Your task to perform on an android device: Open eBay Image 0: 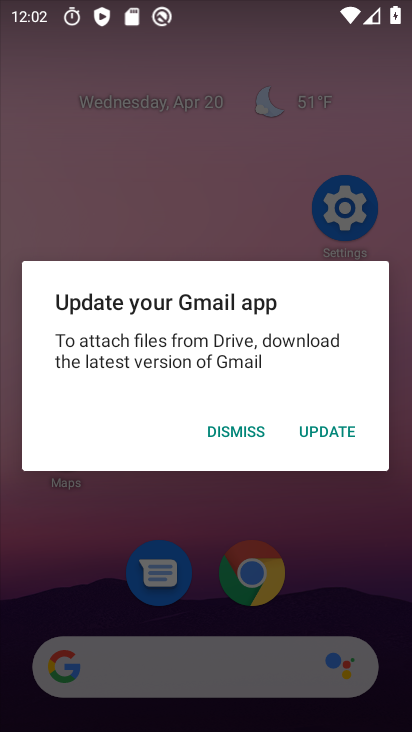
Step 0: press home button
Your task to perform on an android device: Open eBay Image 1: 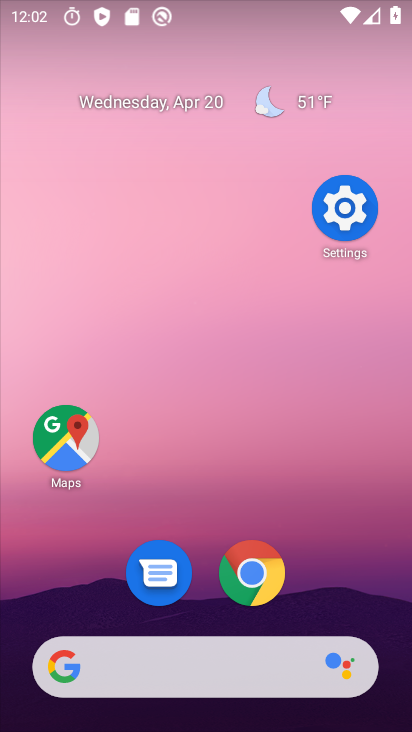
Step 1: click (242, 593)
Your task to perform on an android device: Open eBay Image 2: 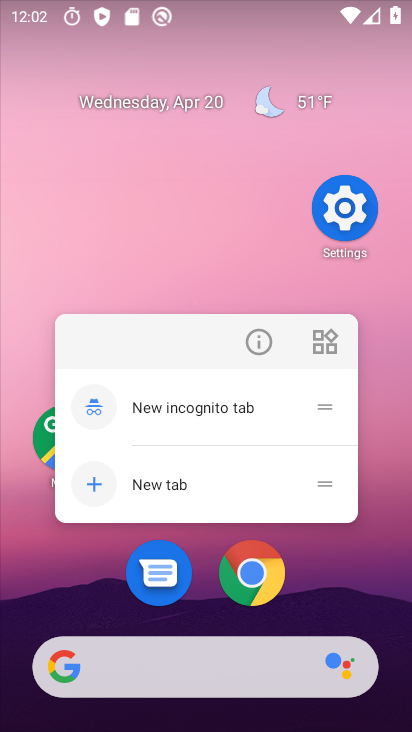
Step 2: click (266, 567)
Your task to perform on an android device: Open eBay Image 3: 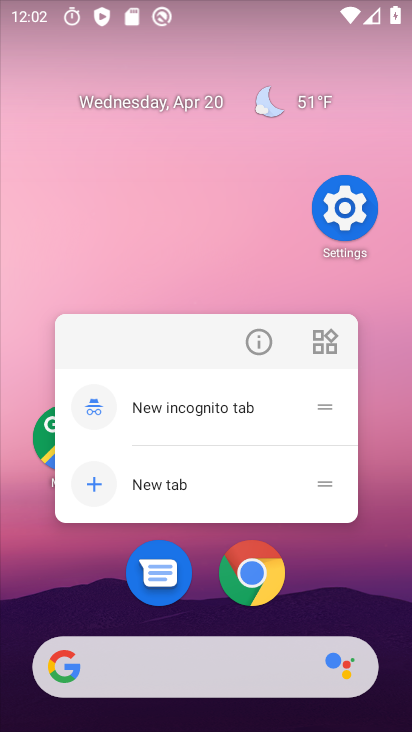
Step 3: click (259, 574)
Your task to perform on an android device: Open eBay Image 4: 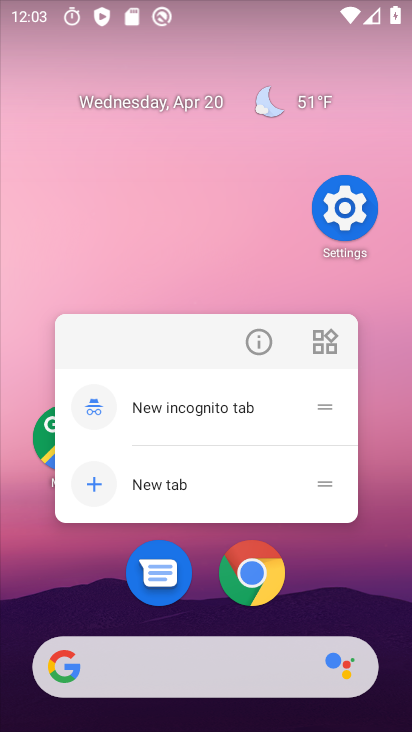
Step 4: click (257, 591)
Your task to perform on an android device: Open eBay Image 5: 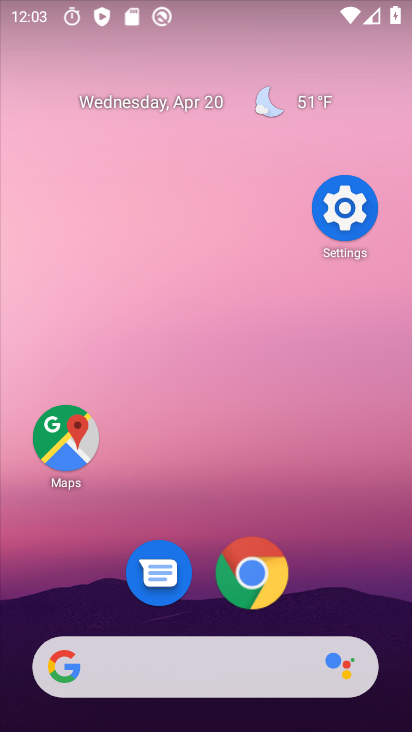
Step 5: click (253, 587)
Your task to perform on an android device: Open eBay Image 6: 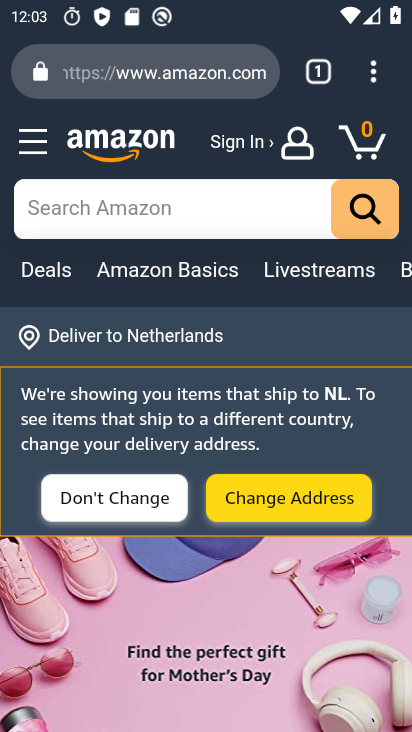
Step 6: click (211, 69)
Your task to perform on an android device: Open eBay Image 7: 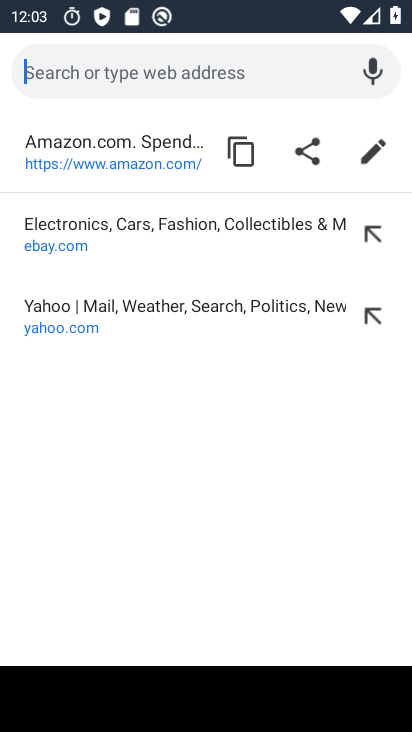
Step 7: type "ebay"
Your task to perform on an android device: Open eBay Image 8: 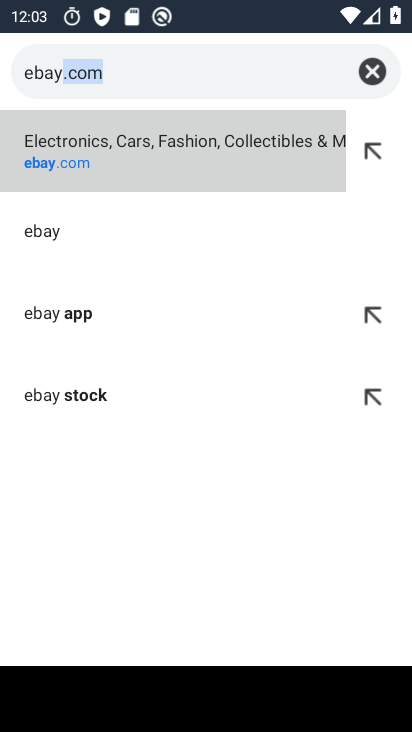
Step 8: click (86, 164)
Your task to perform on an android device: Open eBay Image 9: 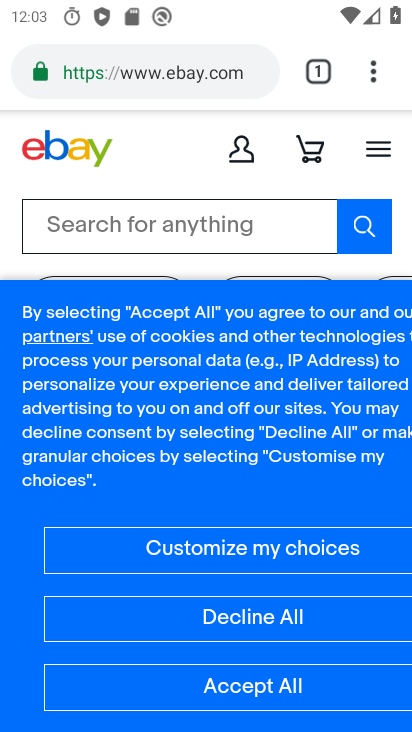
Step 9: task complete